Your task to perform on an android device: toggle notification dots Image 0: 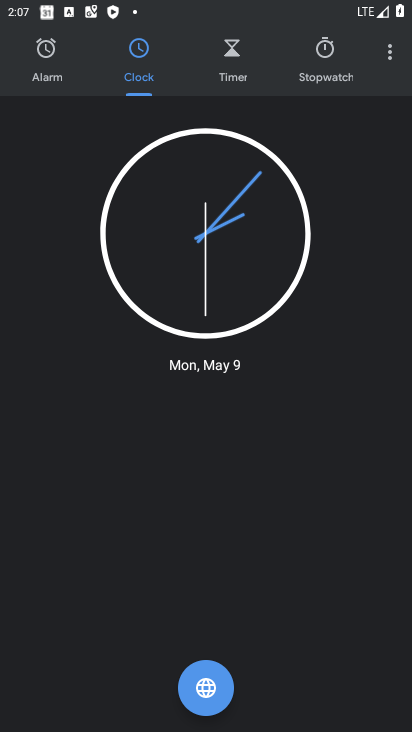
Step 0: press home button
Your task to perform on an android device: toggle notification dots Image 1: 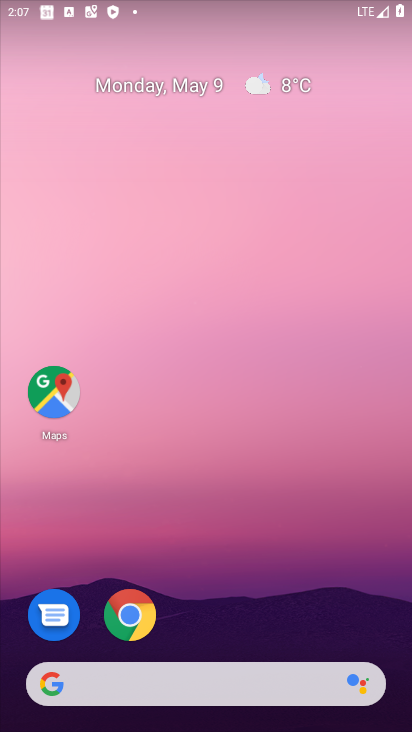
Step 1: drag from (366, 631) to (312, 85)
Your task to perform on an android device: toggle notification dots Image 2: 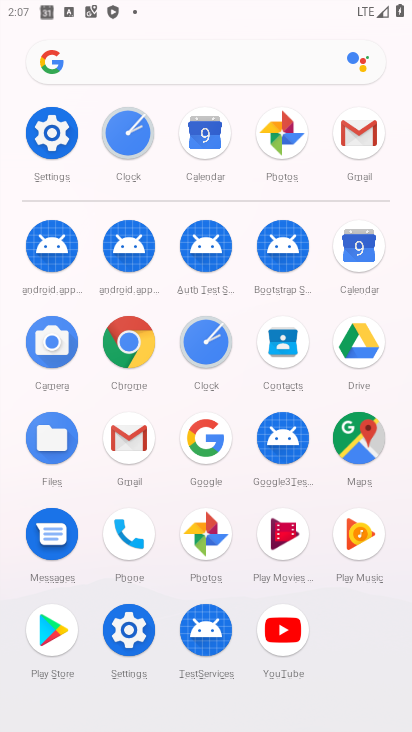
Step 2: click (127, 628)
Your task to perform on an android device: toggle notification dots Image 3: 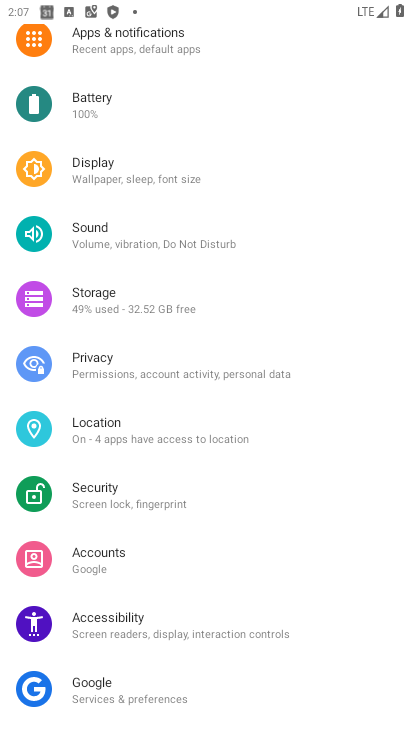
Step 3: drag from (314, 201) to (317, 436)
Your task to perform on an android device: toggle notification dots Image 4: 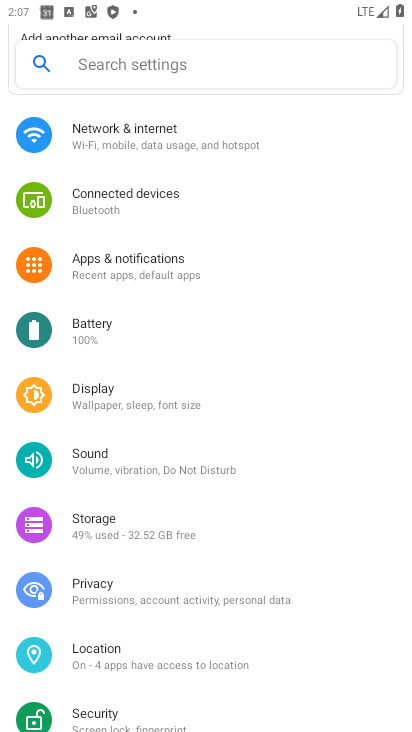
Step 4: click (100, 261)
Your task to perform on an android device: toggle notification dots Image 5: 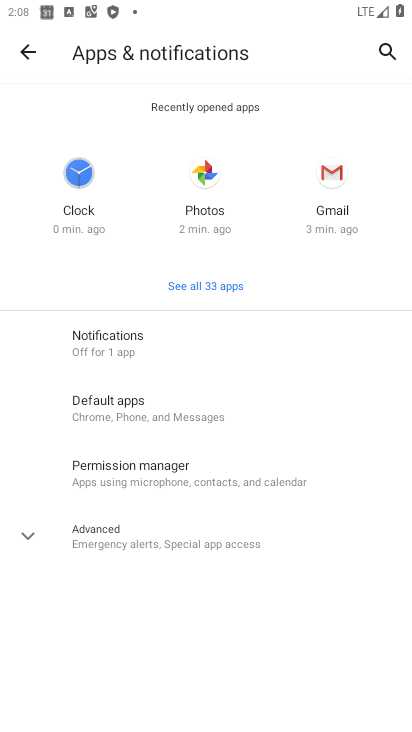
Step 5: click (104, 346)
Your task to perform on an android device: toggle notification dots Image 6: 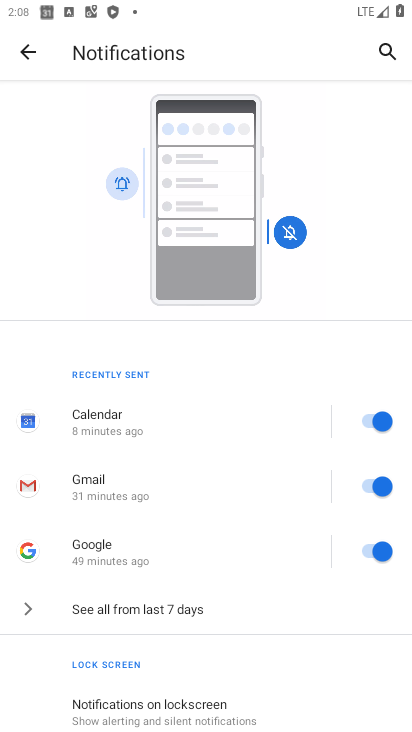
Step 6: drag from (207, 633) to (260, 237)
Your task to perform on an android device: toggle notification dots Image 7: 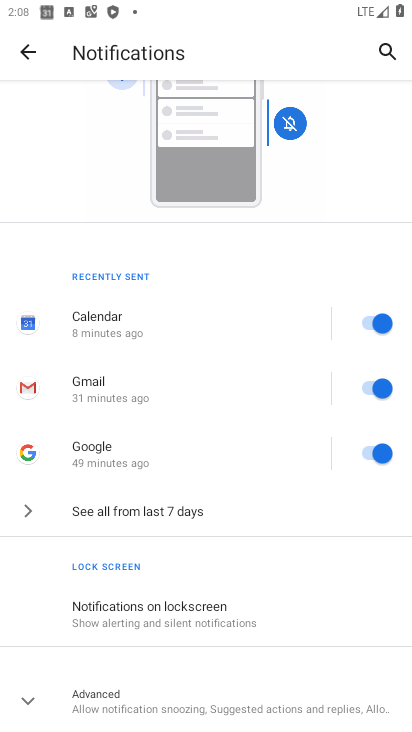
Step 7: click (36, 695)
Your task to perform on an android device: toggle notification dots Image 8: 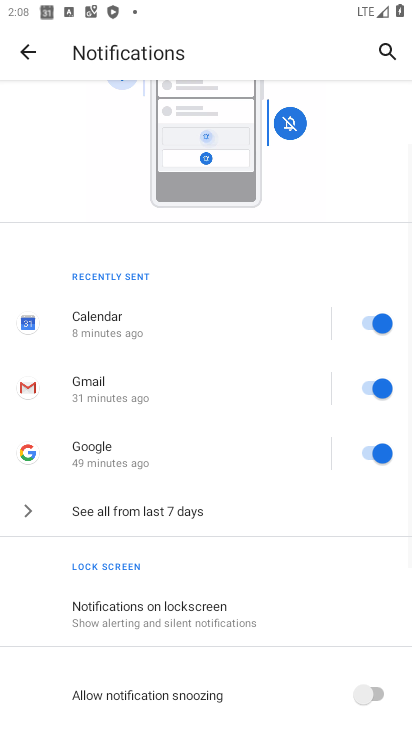
Step 8: drag from (311, 679) to (274, 204)
Your task to perform on an android device: toggle notification dots Image 9: 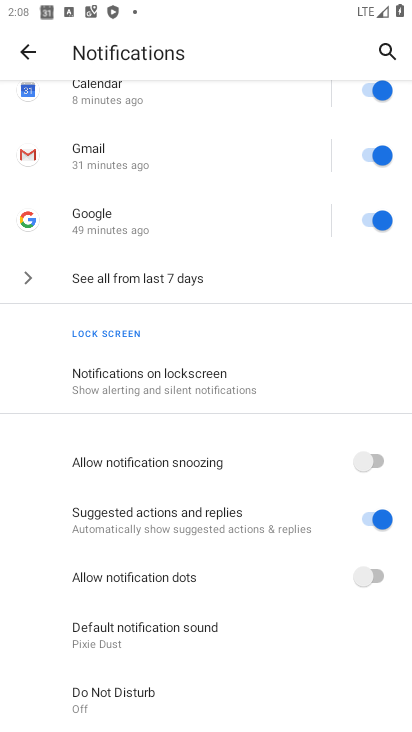
Step 9: click (375, 573)
Your task to perform on an android device: toggle notification dots Image 10: 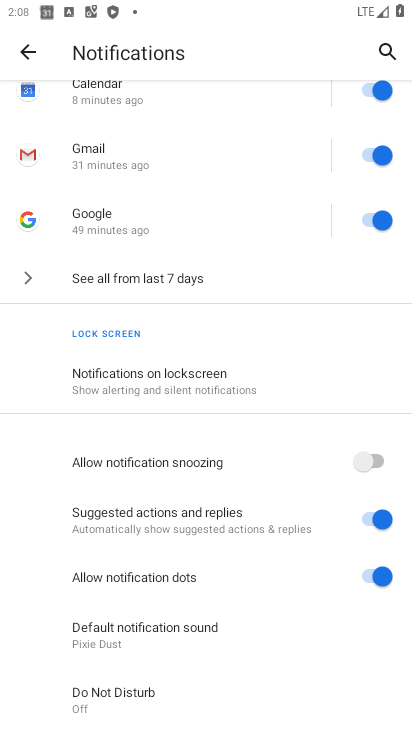
Step 10: task complete